Your task to perform on an android device: Open Google Image 0: 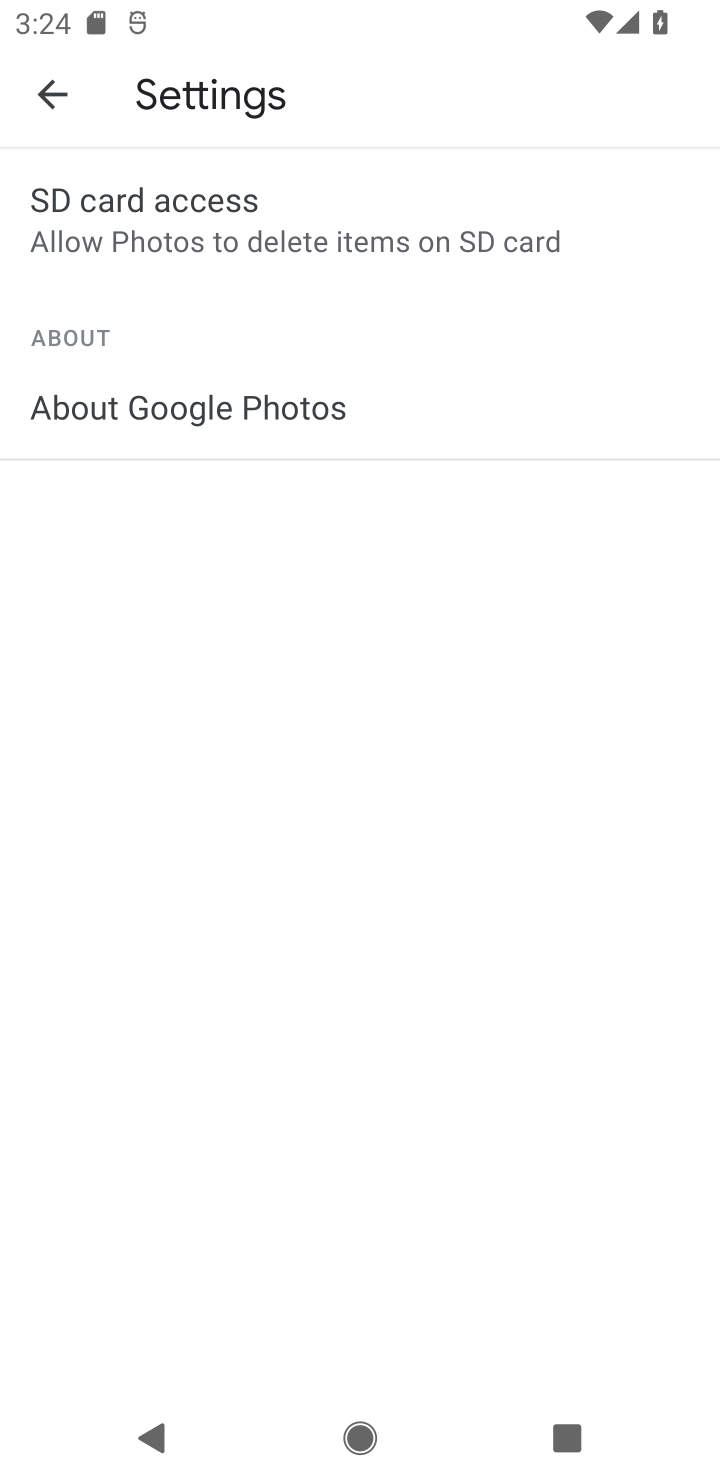
Step 0: press back button
Your task to perform on an android device: Open Google Image 1: 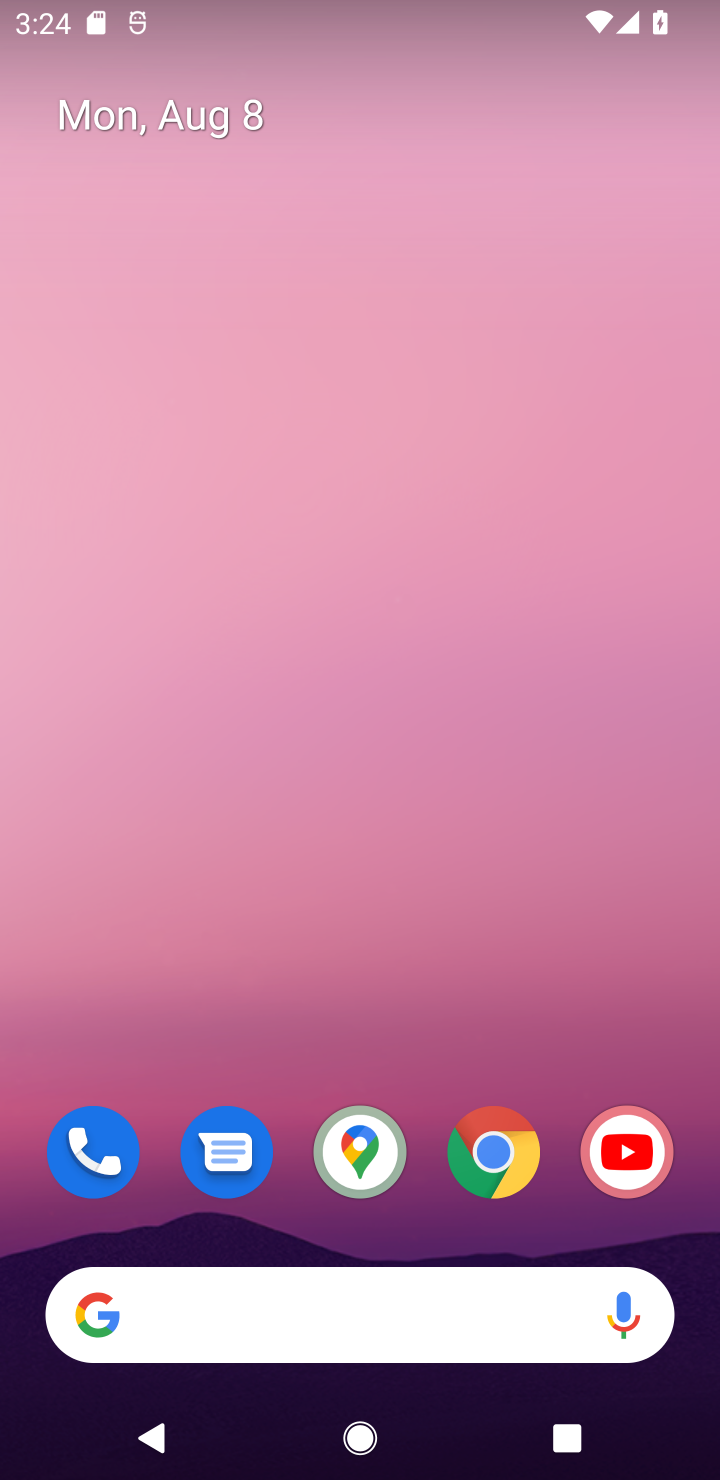
Step 1: drag from (468, 709) to (559, 33)
Your task to perform on an android device: Open Google Image 2: 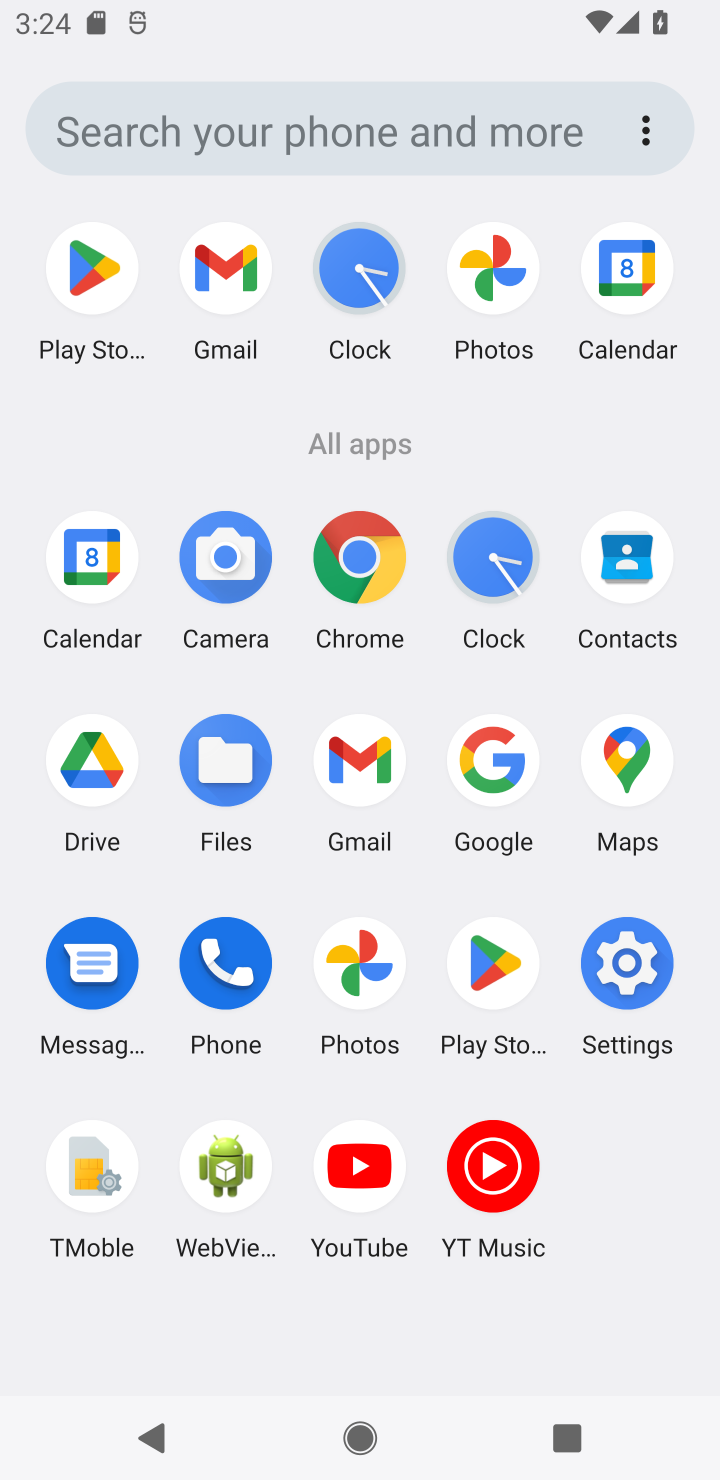
Step 2: click (496, 768)
Your task to perform on an android device: Open Google Image 3: 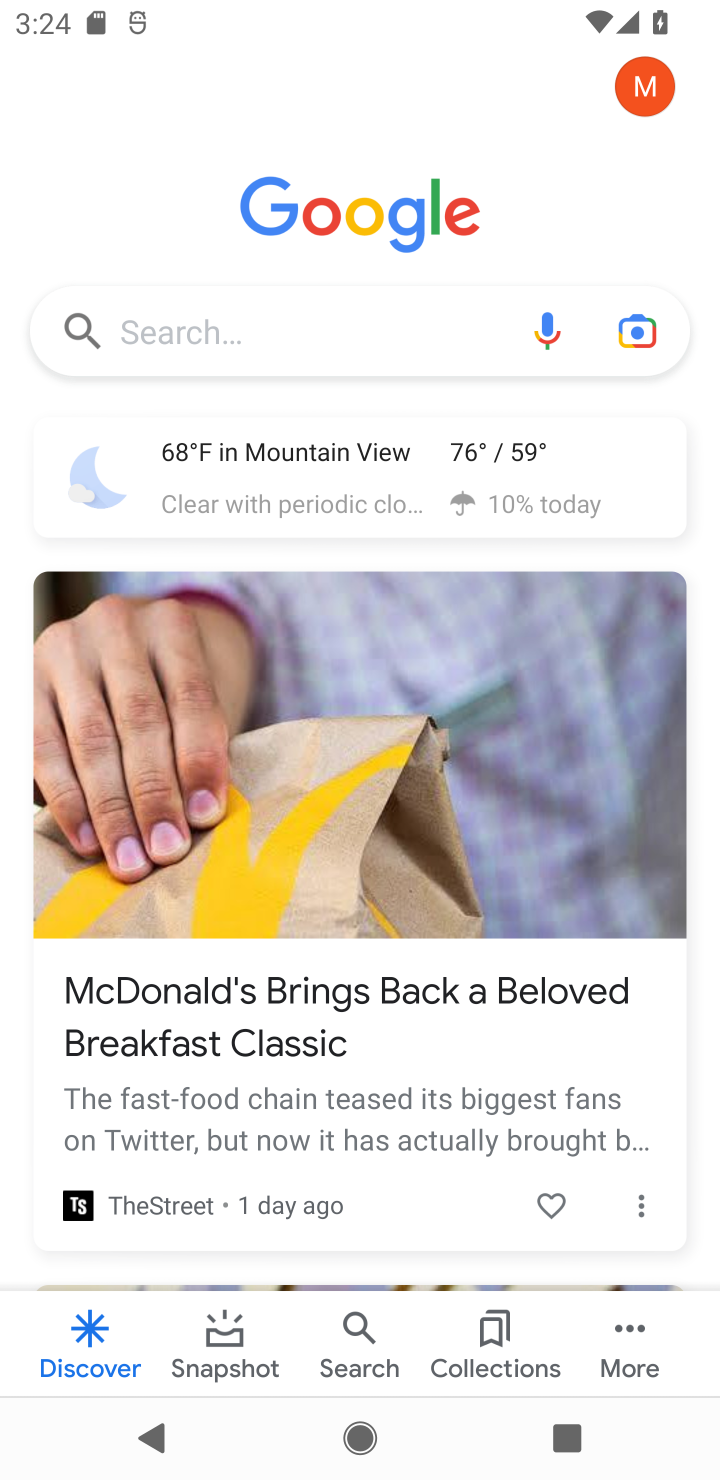
Step 3: task complete